Your task to perform on an android device: Go to Yahoo.com Image 0: 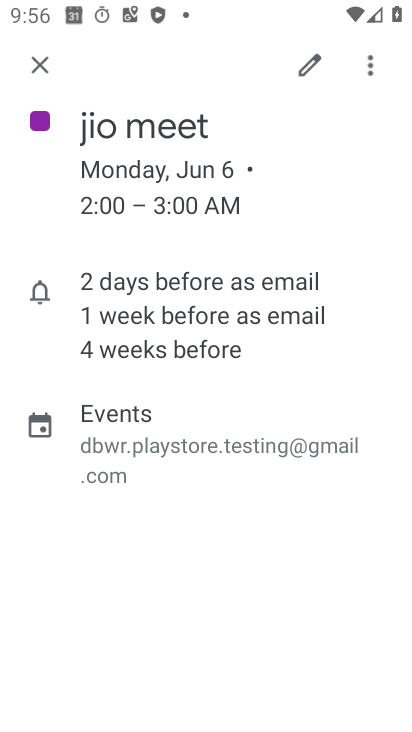
Step 0: press home button
Your task to perform on an android device: Go to Yahoo.com Image 1: 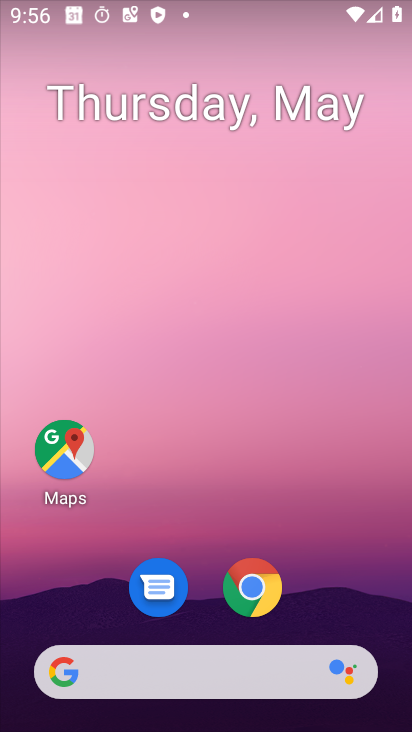
Step 1: click (259, 601)
Your task to perform on an android device: Go to Yahoo.com Image 2: 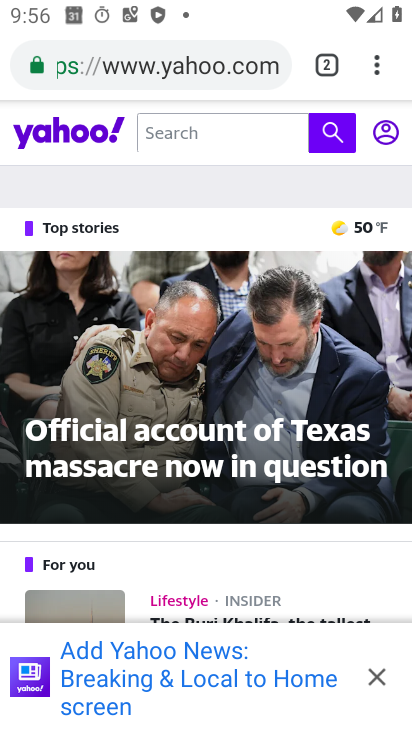
Step 2: task complete